Your task to perform on an android device: install app "DuckDuckGo Privacy Browser" Image 0: 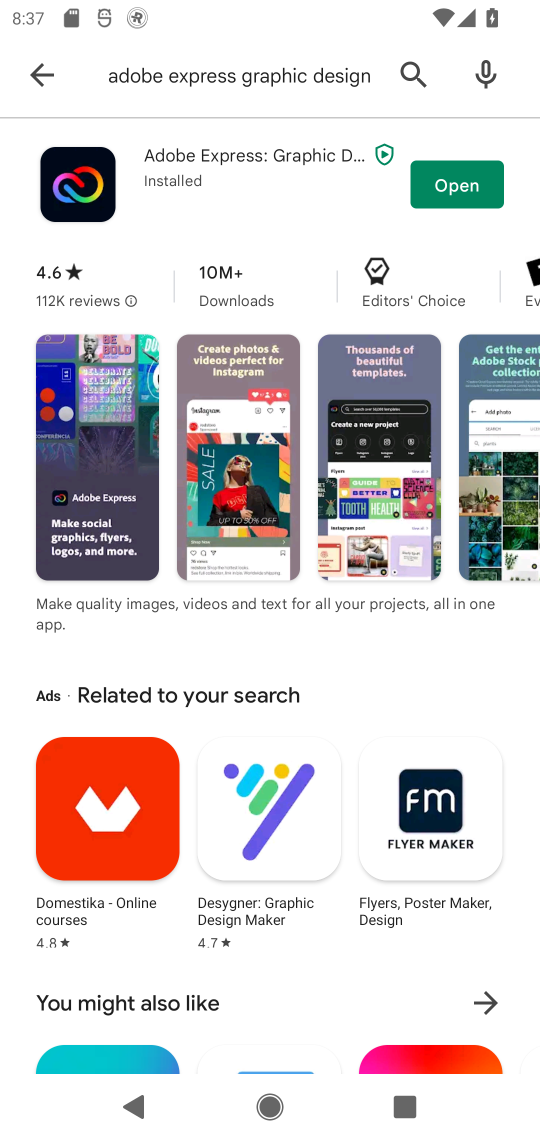
Step 0: press home button
Your task to perform on an android device: install app "DuckDuckGo Privacy Browser" Image 1: 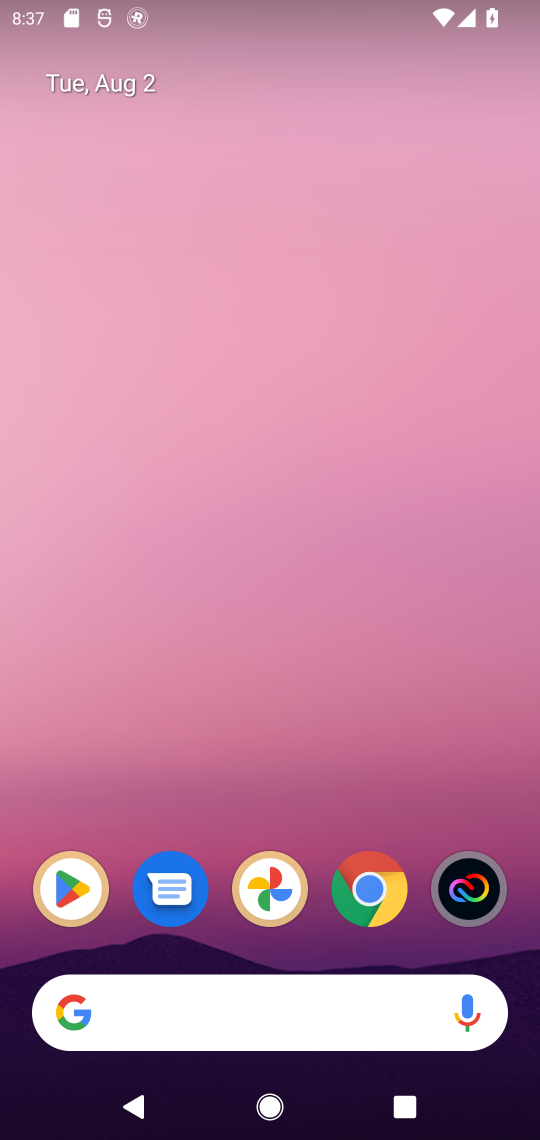
Step 1: click (70, 884)
Your task to perform on an android device: install app "DuckDuckGo Privacy Browser" Image 2: 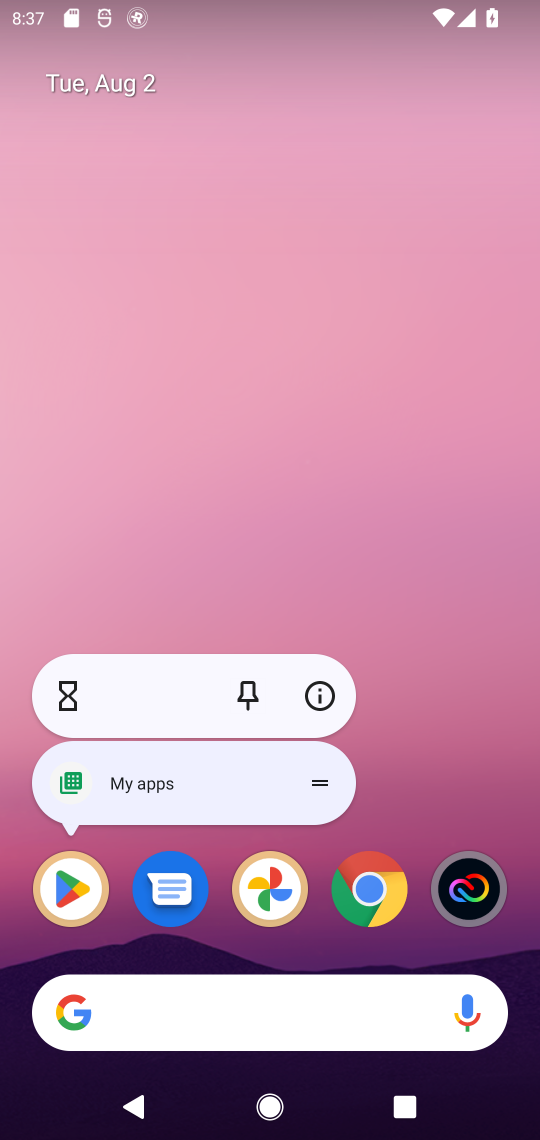
Step 2: click (70, 885)
Your task to perform on an android device: install app "DuckDuckGo Privacy Browser" Image 3: 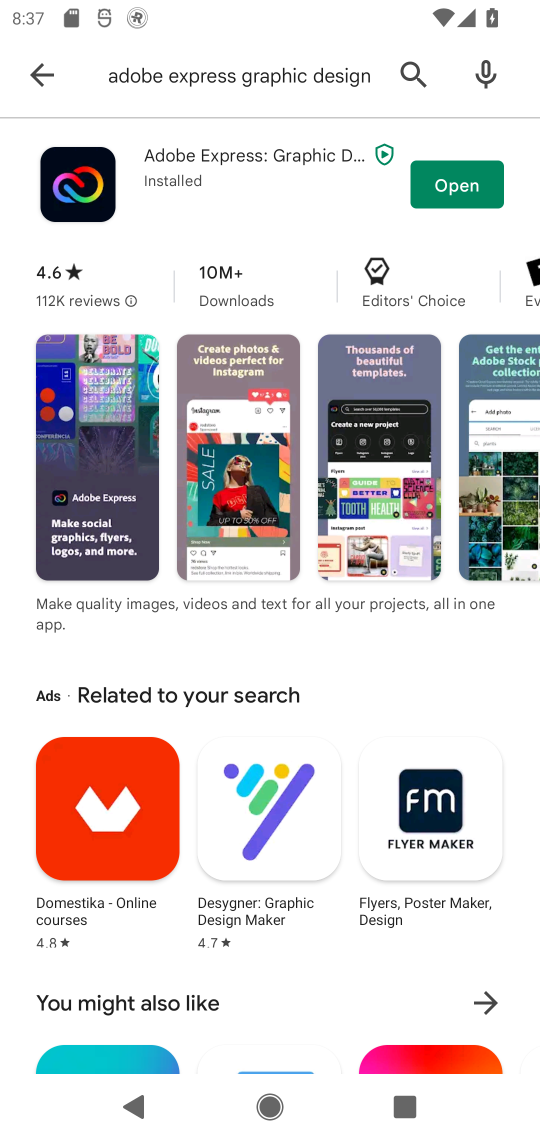
Step 3: click (412, 71)
Your task to perform on an android device: install app "DuckDuckGo Privacy Browser" Image 4: 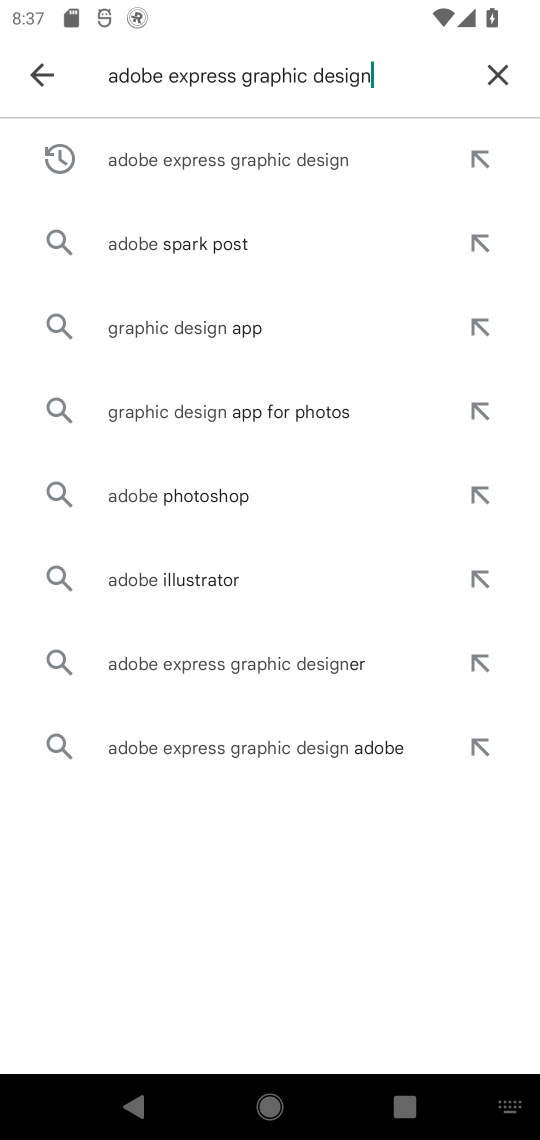
Step 4: click (494, 70)
Your task to perform on an android device: install app "DuckDuckGo Privacy Browser" Image 5: 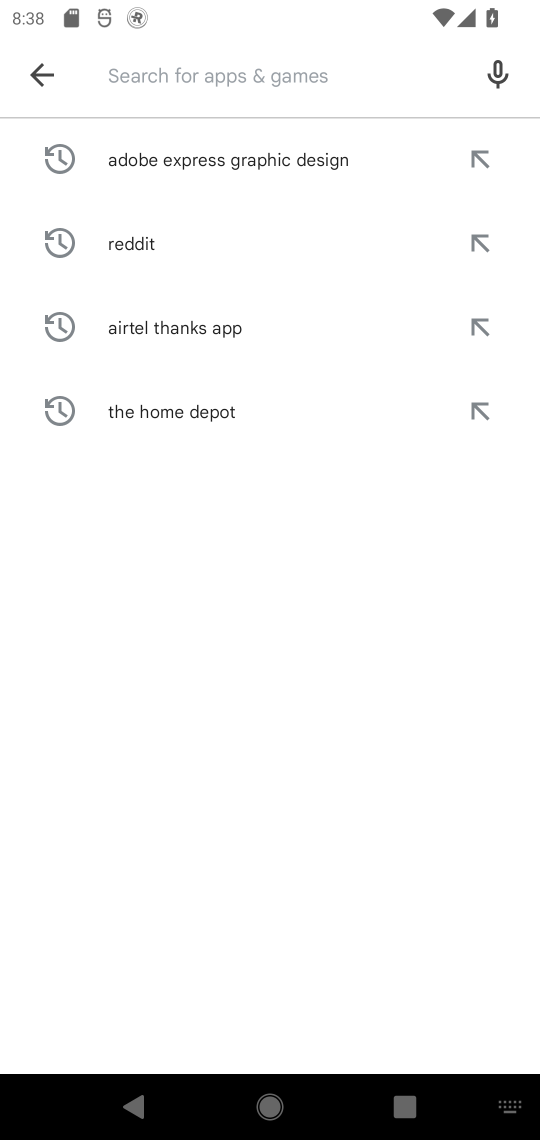
Step 5: type "DuckDuckGo Privacy Browser"
Your task to perform on an android device: install app "DuckDuckGo Privacy Browser" Image 6: 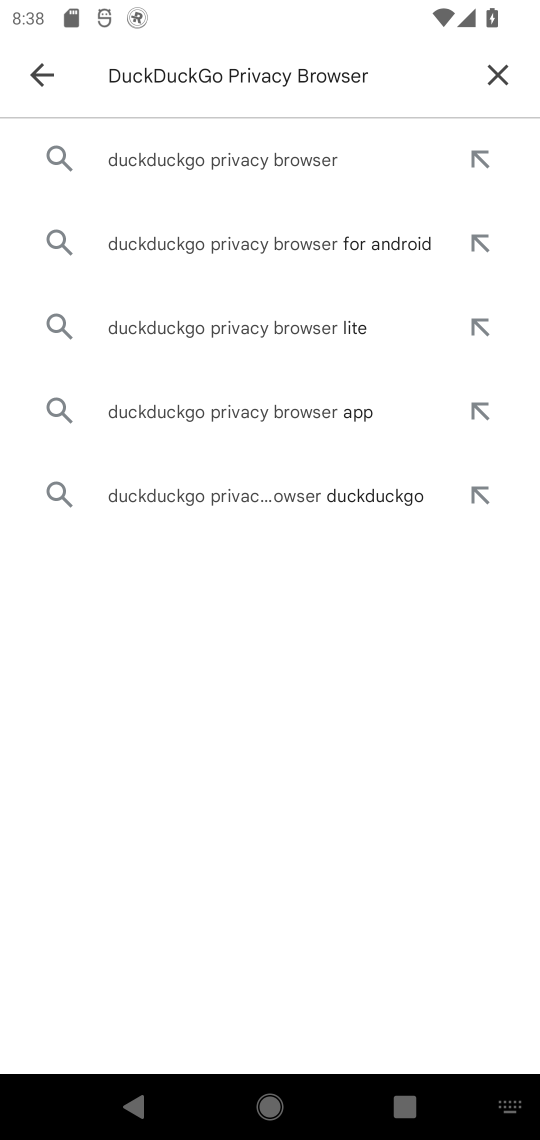
Step 6: click (178, 156)
Your task to perform on an android device: install app "DuckDuckGo Privacy Browser" Image 7: 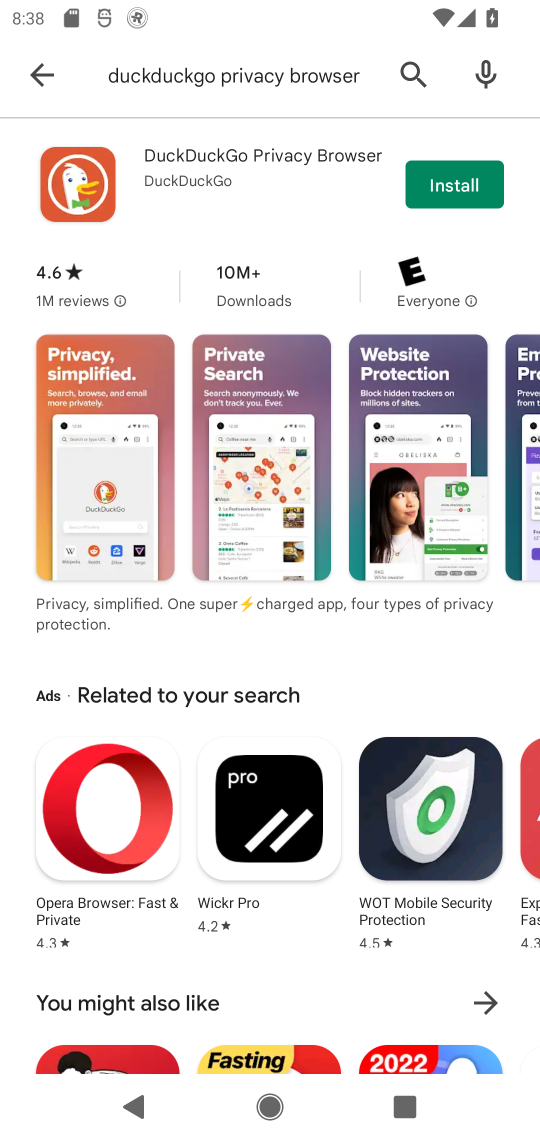
Step 7: click (463, 185)
Your task to perform on an android device: install app "DuckDuckGo Privacy Browser" Image 8: 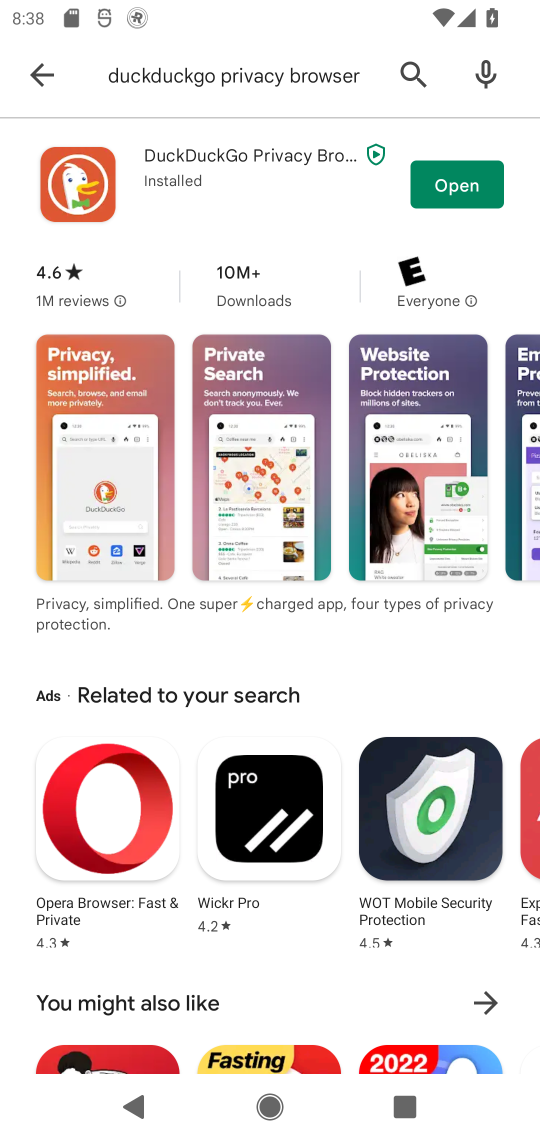
Step 8: task complete